Your task to perform on an android device: find photos in the google photos app Image 0: 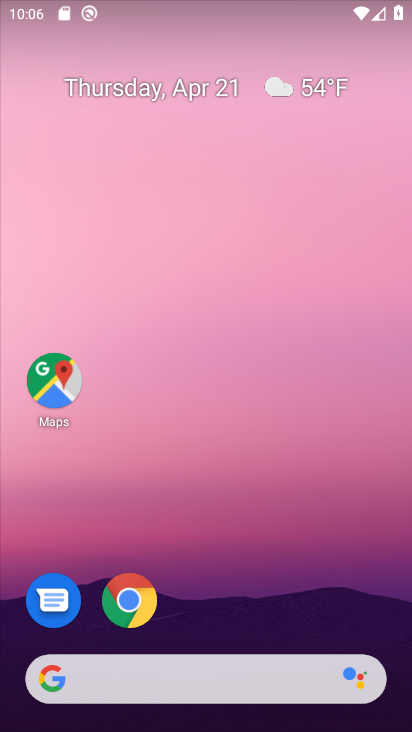
Step 0: drag from (230, 558) to (215, 76)
Your task to perform on an android device: find photos in the google photos app Image 1: 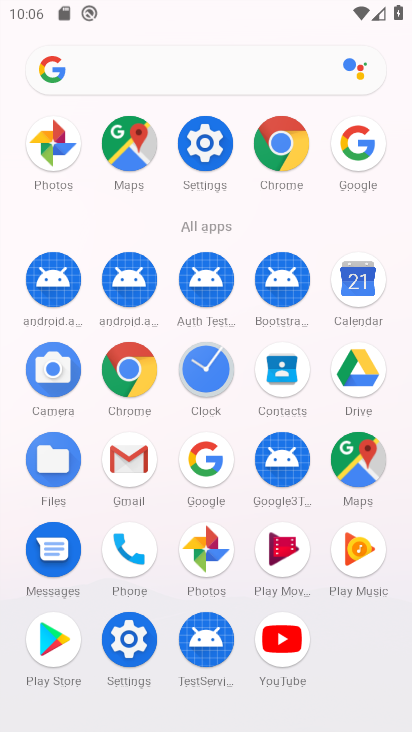
Step 1: click (52, 153)
Your task to perform on an android device: find photos in the google photos app Image 2: 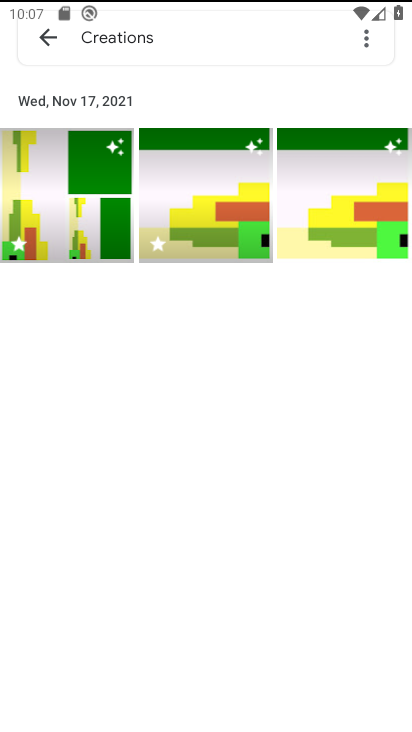
Step 2: click (46, 40)
Your task to perform on an android device: find photos in the google photos app Image 3: 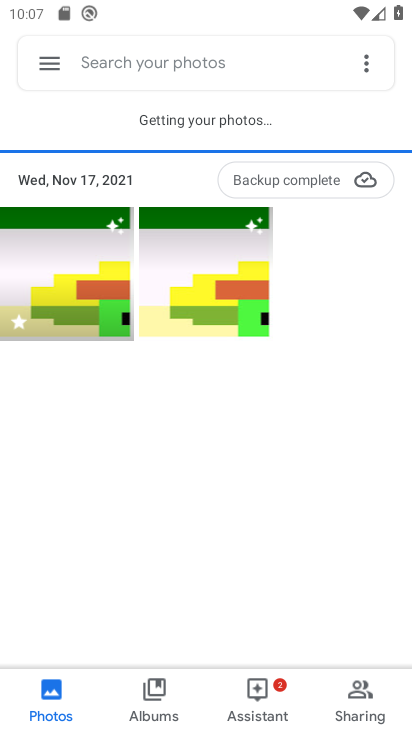
Step 3: task complete